Your task to perform on an android device: Search for acer nitro on ebay.com, select the first entry, add it to the cart, then select checkout. Image 0: 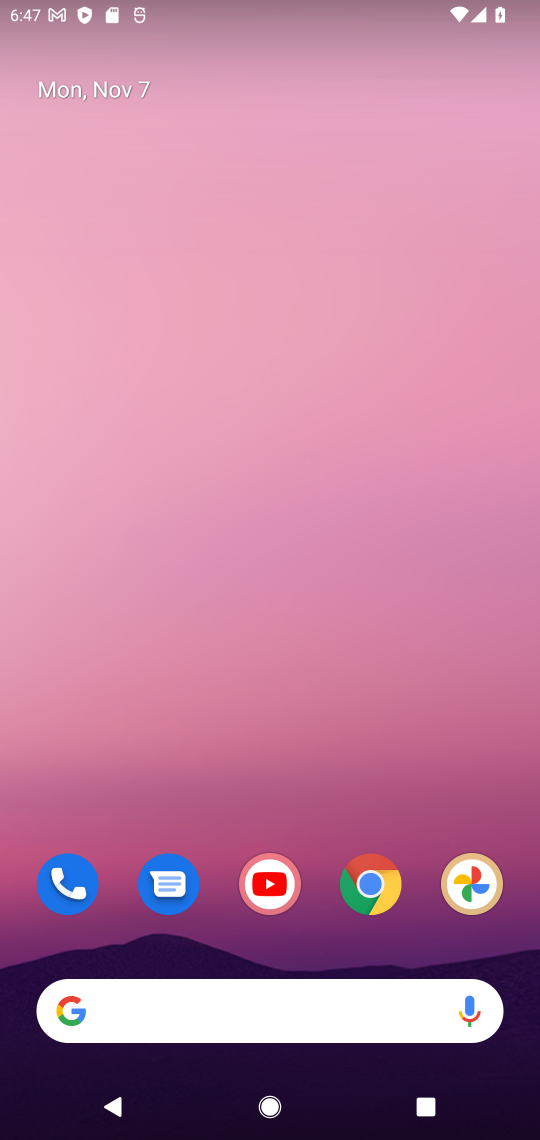
Step 0: click (365, 897)
Your task to perform on an android device: Search for acer nitro on ebay.com, select the first entry, add it to the cart, then select checkout. Image 1: 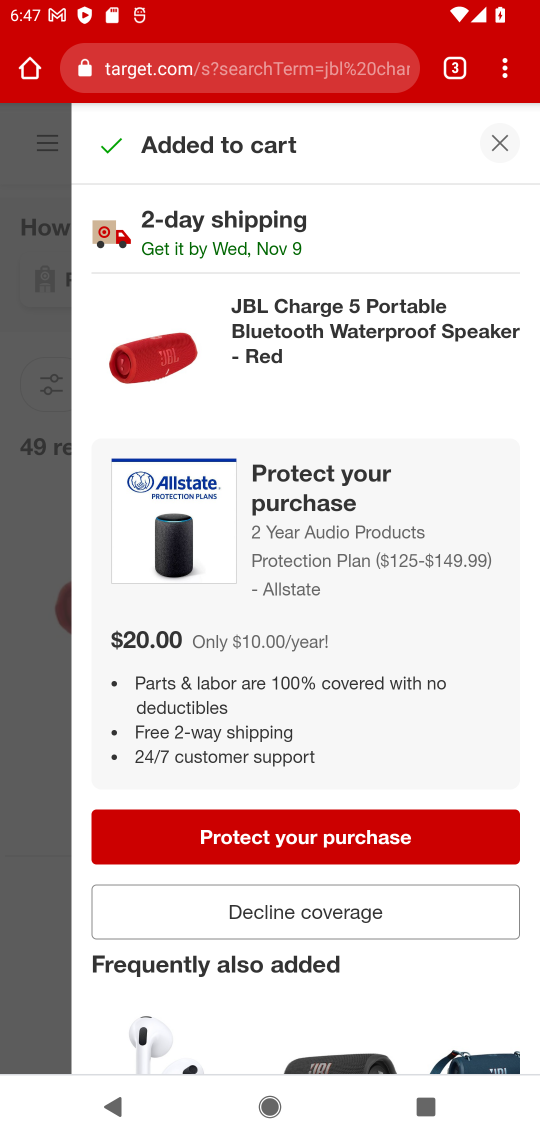
Step 1: click (444, 68)
Your task to perform on an android device: Search for acer nitro on ebay.com, select the first entry, add it to the cart, then select checkout. Image 2: 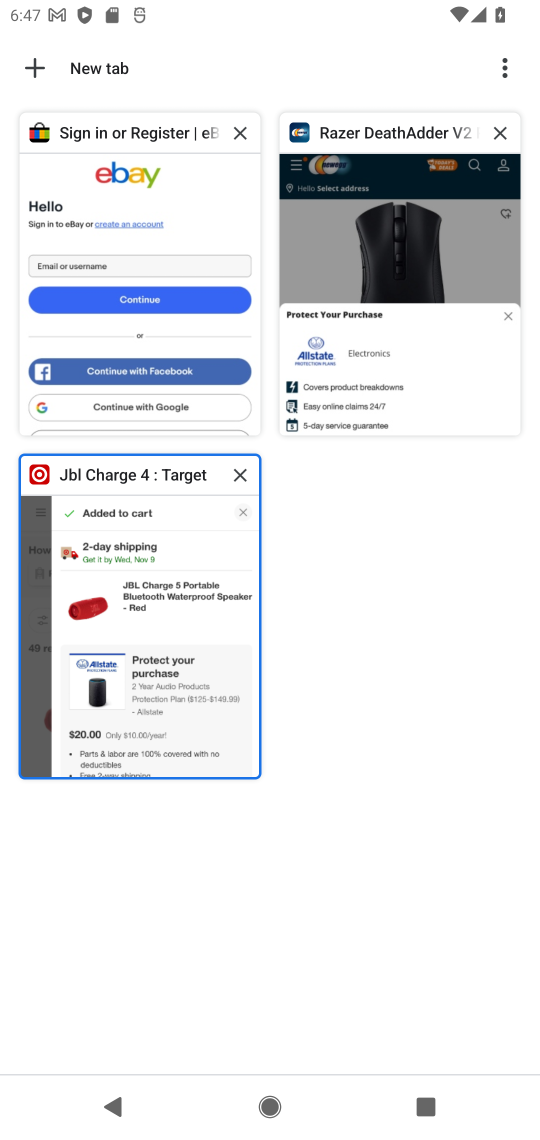
Step 2: click (129, 243)
Your task to perform on an android device: Search for acer nitro on ebay.com, select the first entry, add it to the cart, then select checkout. Image 3: 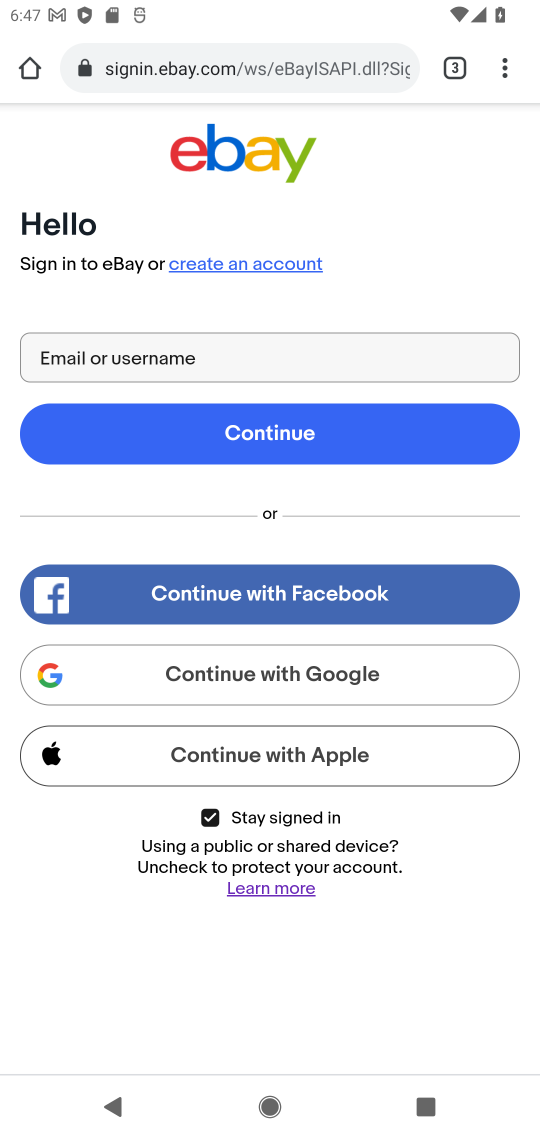
Step 3: press back button
Your task to perform on an android device: Search for acer nitro on ebay.com, select the first entry, add it to the cart, then select checkout. Image 4: 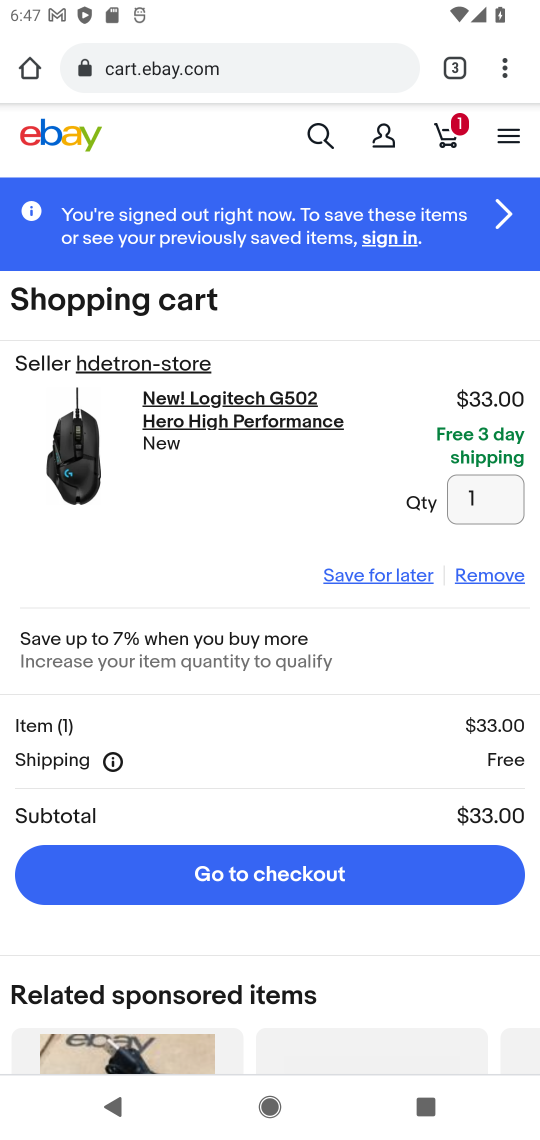
Step 4: click (321, 128)
Your task to perform on an android device: Search for acer nitro on ebay.com, select the first entry, add it to the cart, then select checkout. Image 5: 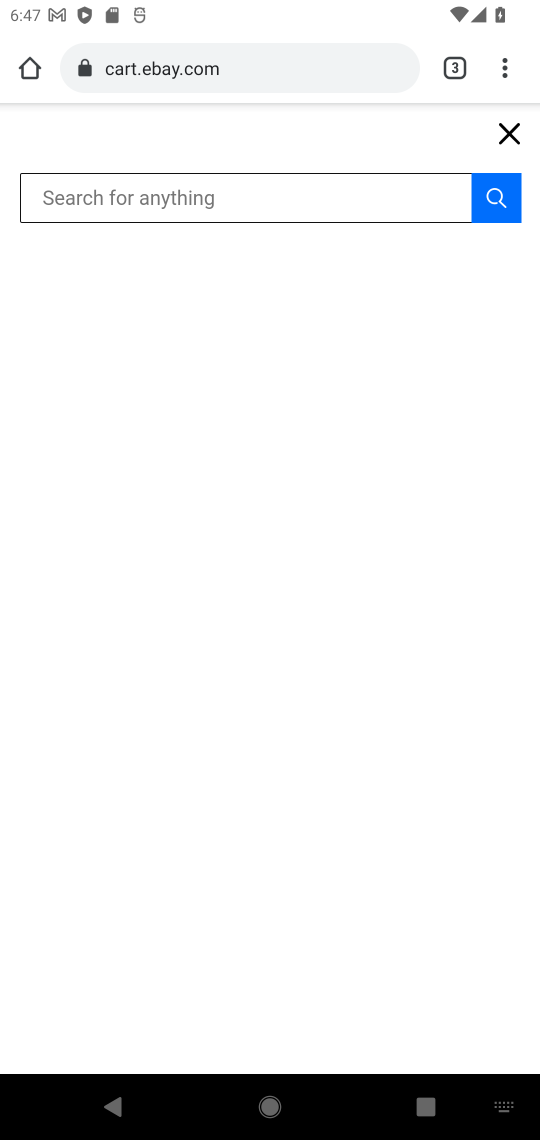
Step 5: type "acer nitro "
Your task to perform on an android device: Search for acer nitro on ebay.com, select the first entry, add it to the cart, then select checkout. Image 6: 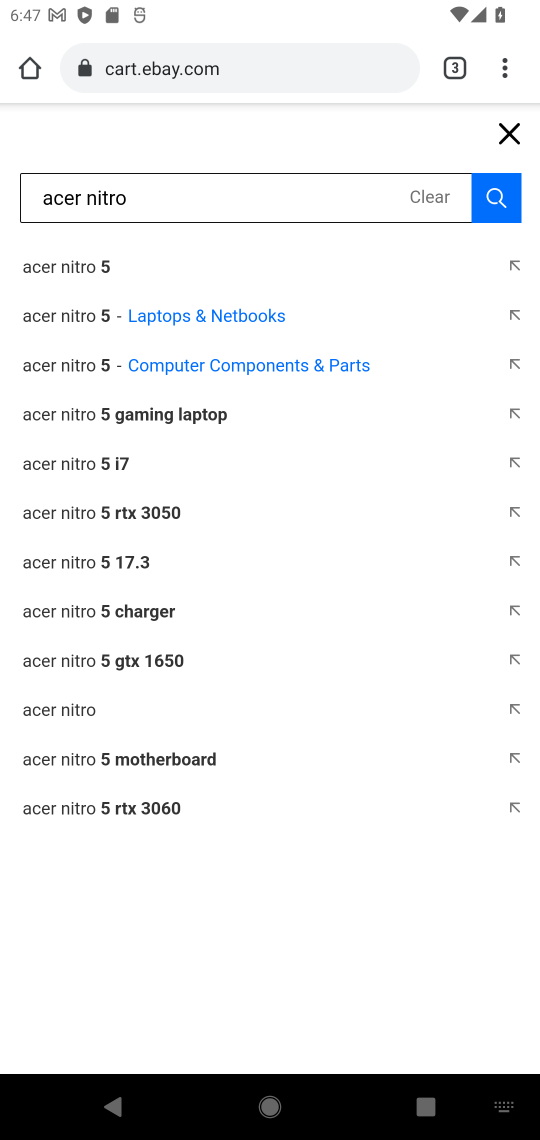
Step 6: click (58, 314)
Your task to perform on an android device: Search for acer nitro on ebay.com, select the first entry, add it to the cart, then select checkout. Image 7: 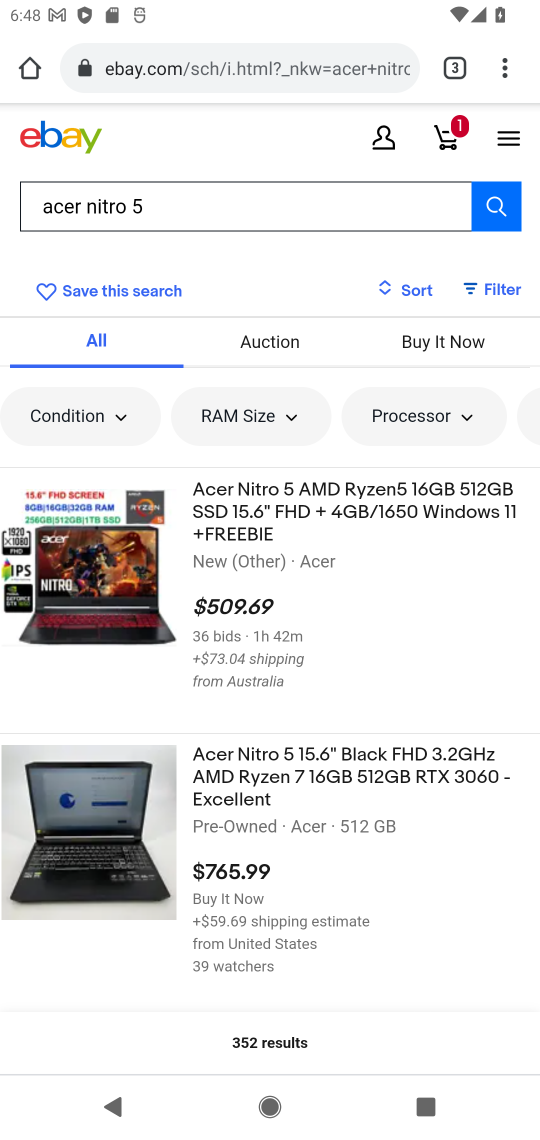
Step 7: click (281, 503)
Your task to perform on an android device: Search for acer nitro on ebay.com, select the first entry, add it to the cart, then select checkout. Image 8: 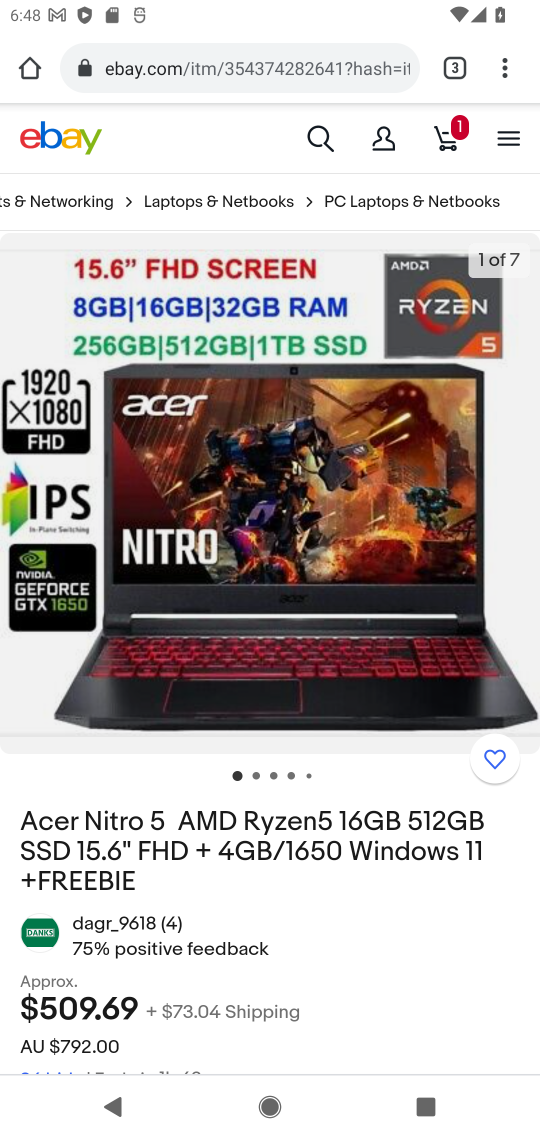
Step 8: drag from (291, 801) to (469, 5)
Your task to perform on an android device: Search for acer nitro on ebay.com, select the first entry, add it to the cart, then select checkout. Image 9: 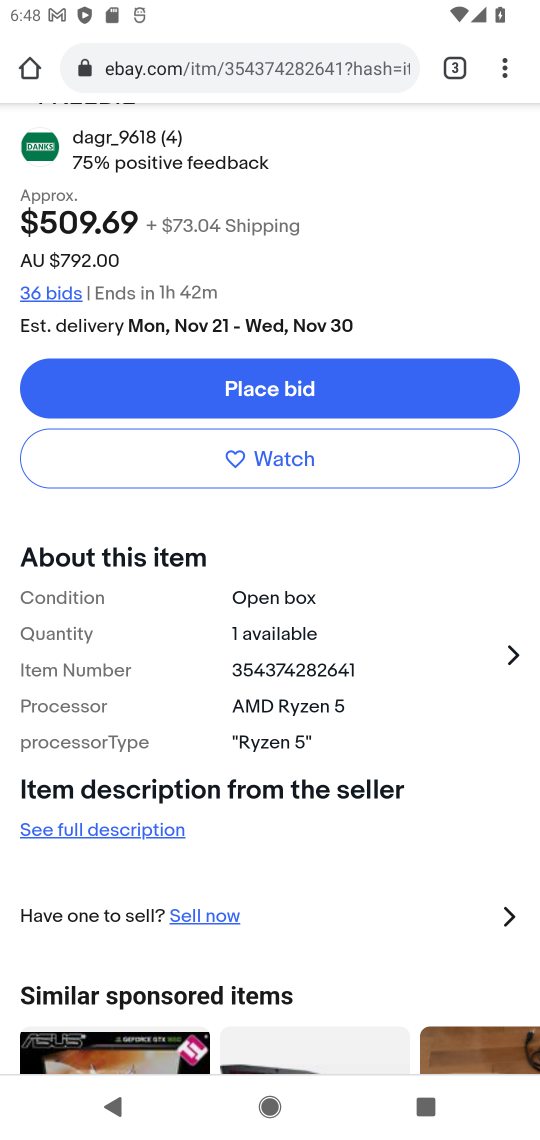
Step 9: press back button
Your task to perform on an android device: Search for acer nitro on ebay.com, select the first entry, add it to the cart, then select checkout. Image 10: 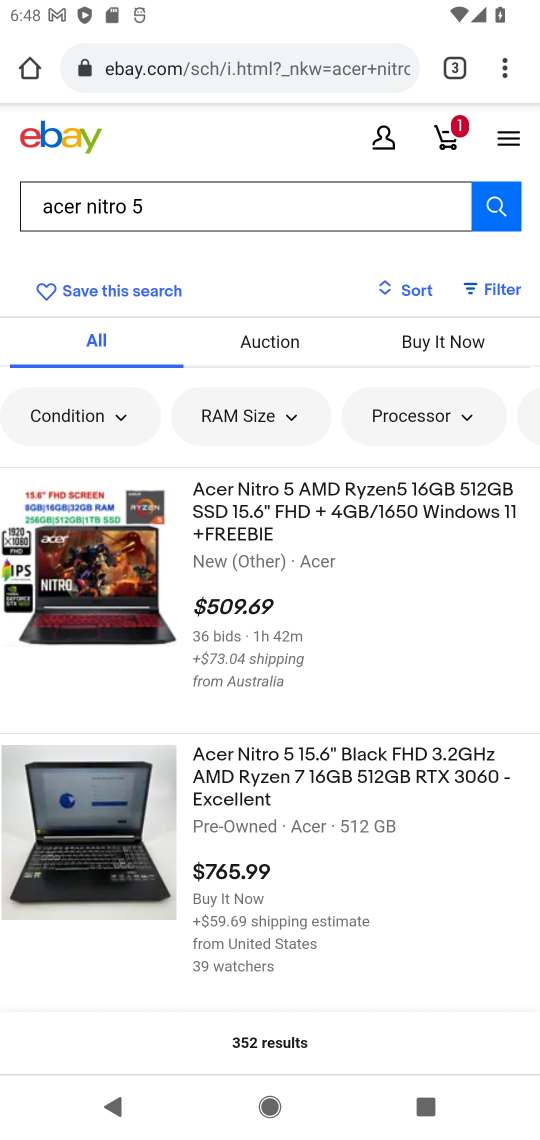
Step 10: click (311, 768)
Your task to perform on an android device: Search for acer nitro on ebay.com, select the first entry, add it to the cart, then select checkout. Image 11: 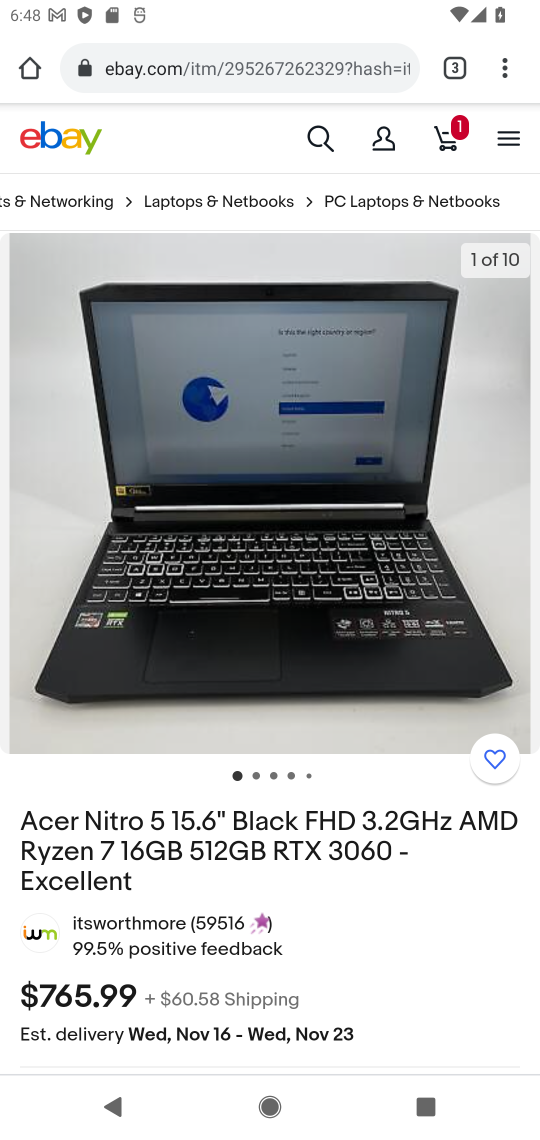
Step 11: drag from (299, 980) to (349, 163)
Your task to perform on an android device: Search for acer nitro on ebay.com, select the first entry, add it to the cart, then select checkout. Image 12: 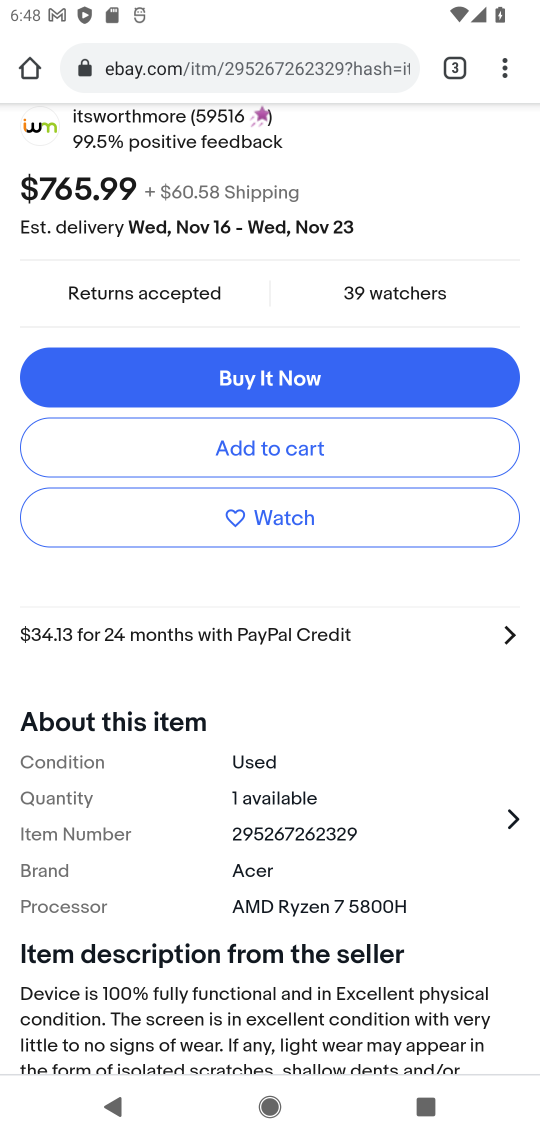
Step 12: click (330, 447)
Your task to perform on an android device: Search for acer nitro on ebay.com, select the first entry, add it to the cart, then select checkout. Image 13: 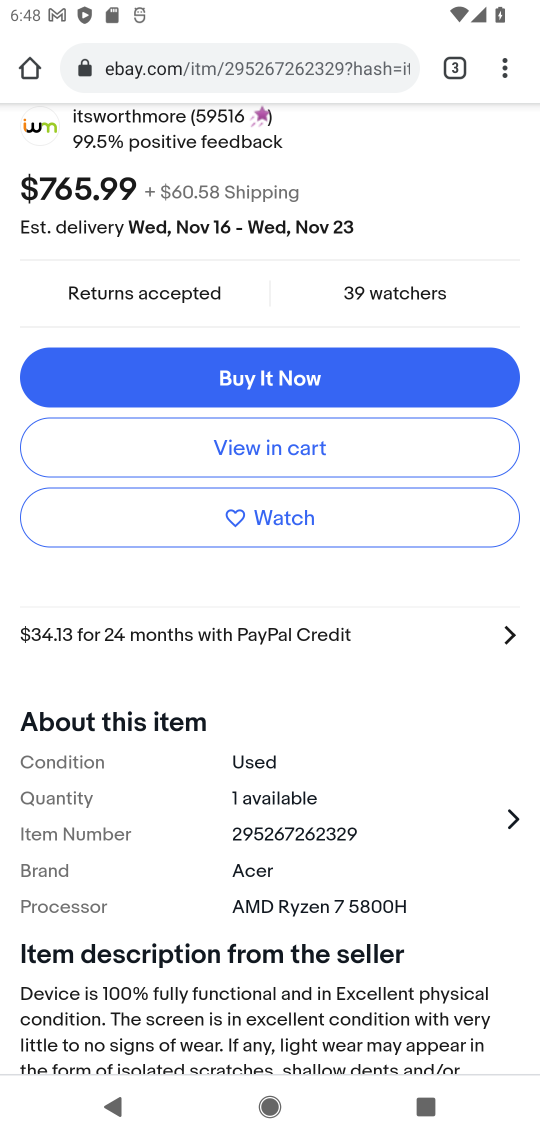
Step 13: task complete